Your task to perform on an android device: add a contact in the contacts app Image 0: 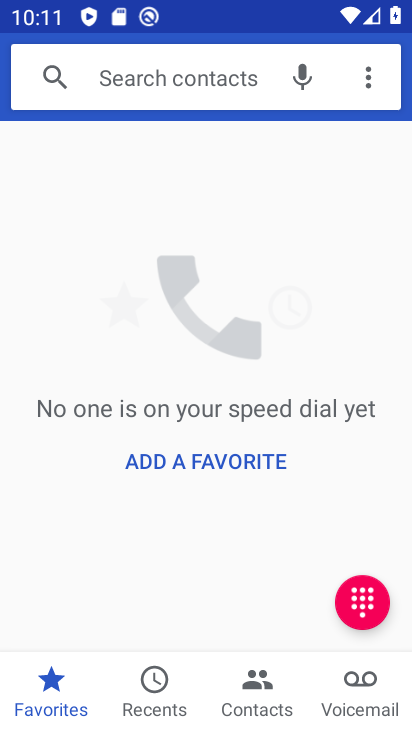
Step 0: press home button
Your task to perform on an android device: add a contact in the contacts app Image 1: 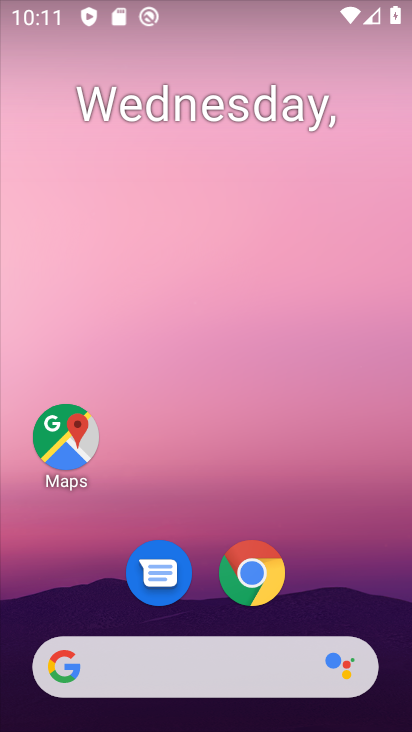
Step 1: drag from (293, 526) to (269, 224)
Your task to perform on an android device: add a contact in the contacts app Image 2: 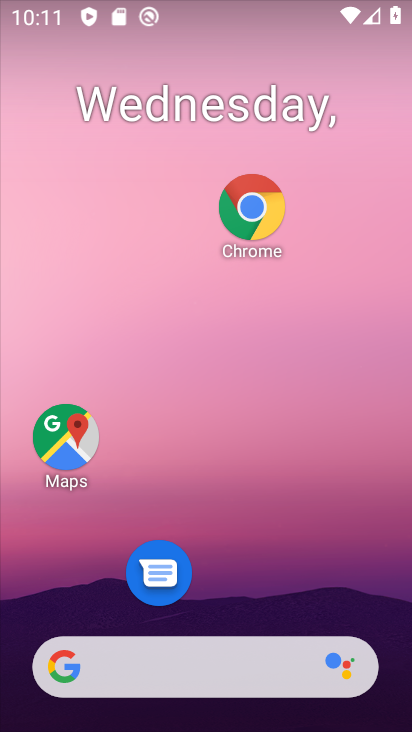
Step 2: drag from (274, 482) to (272, 218)
Your task to perform on an android device: add a contact in the contacts app Image 3: 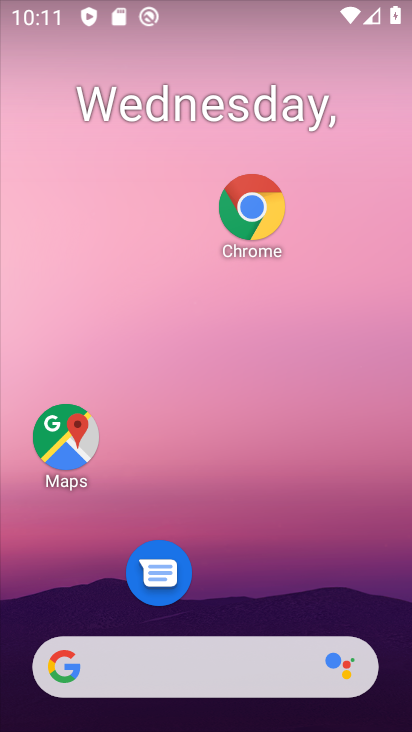
Step 3: drag from (256, 438) to (251, 227)
Your task to perform on an android device: add a contact in the contacts app Image 4: 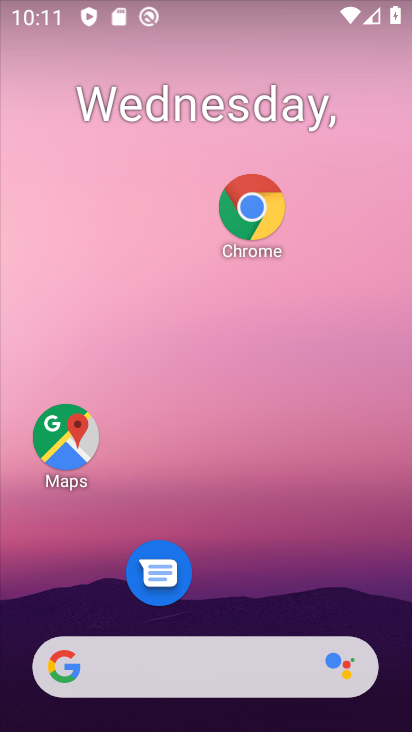
Step 4: drag from (286, 506) to (255, 337)
Your task to perform on an android device: add a contact in the contacts app Image 5: 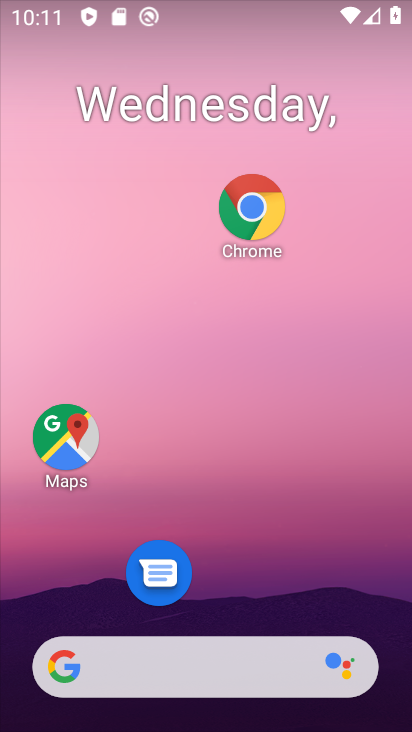
Step 5: drag from (256, 568) to (205, 139)
Your task to perform on an android device: add a contact in the contacts app Image 6: 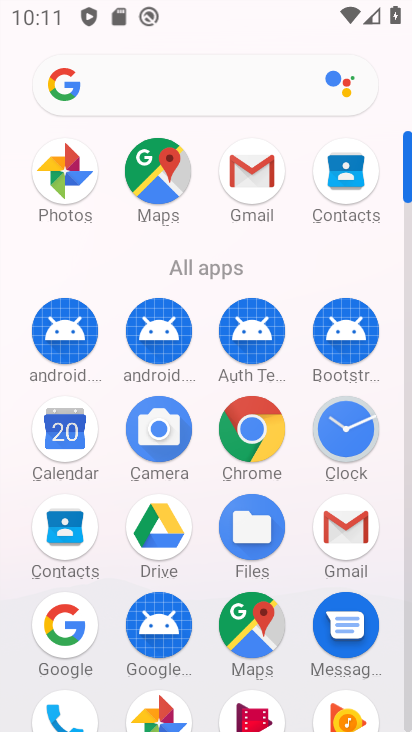
Step 6: click (72, 533)
Your task to perform on an android device: add a contact in the contacts app Image 7: 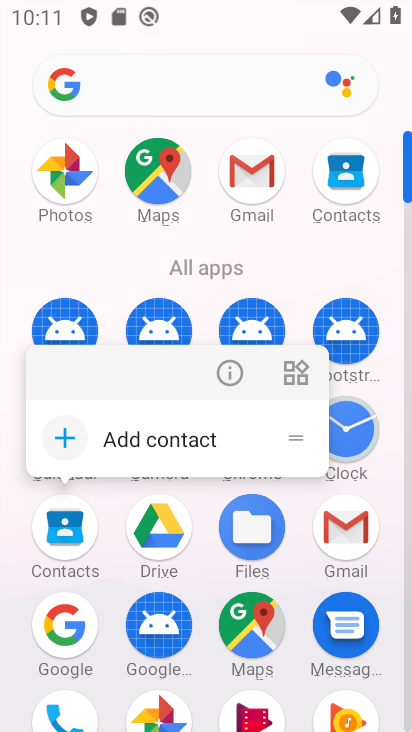
Step 7: click (64, 527)
Your task to perform on an android device: add a contact in the contacts app Image 8: 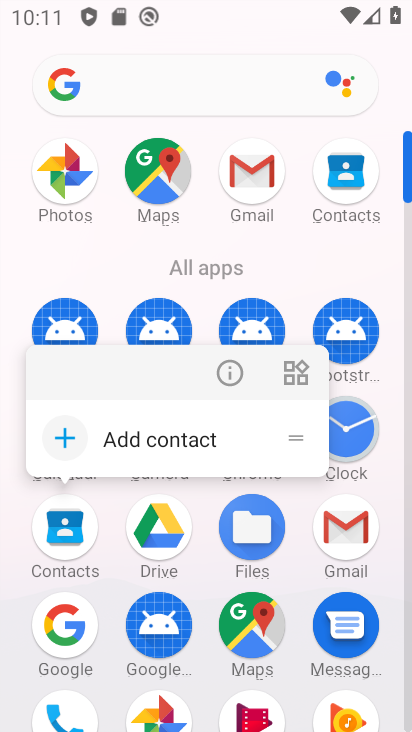
Step 8: click (65, 542)
Your task to perform on an android device: add a contact in the contacts app Image 9: 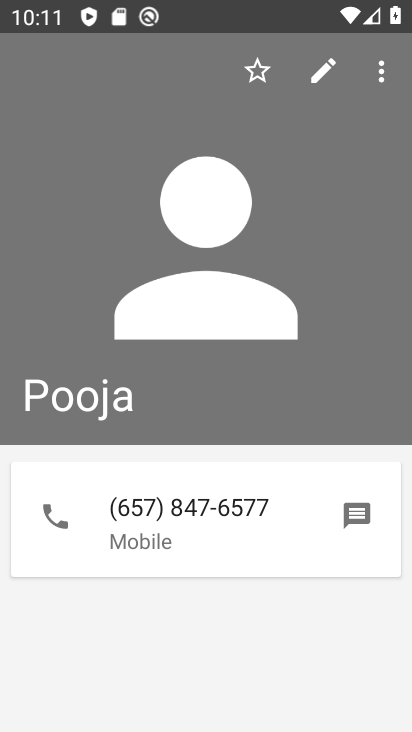
Step 9: press back button
Your task to perform on an android device: add a contact in the contacts app Image 10: 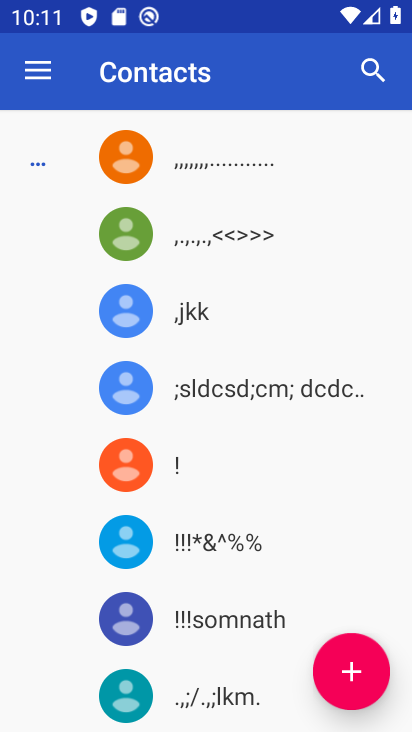
Step 10: click (361, 670)
Your task to perform on an android device: add a contact in the contacts app Image 11: 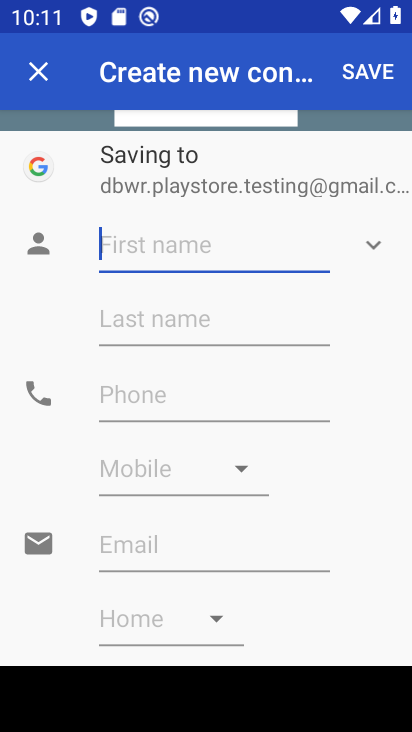
Step 11: type "gudiya"
Your task to perform on an android device: add a contact in the contacts app Image 12: 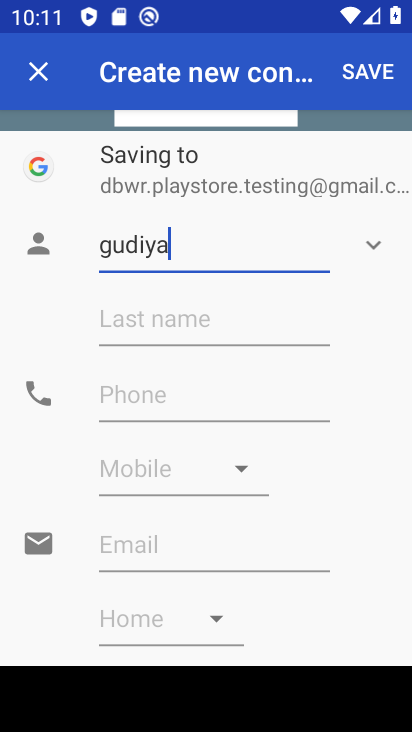
Step 12: click (249, 390)
Your task to perform on an android device: add a contact in the contacts app Image 13: 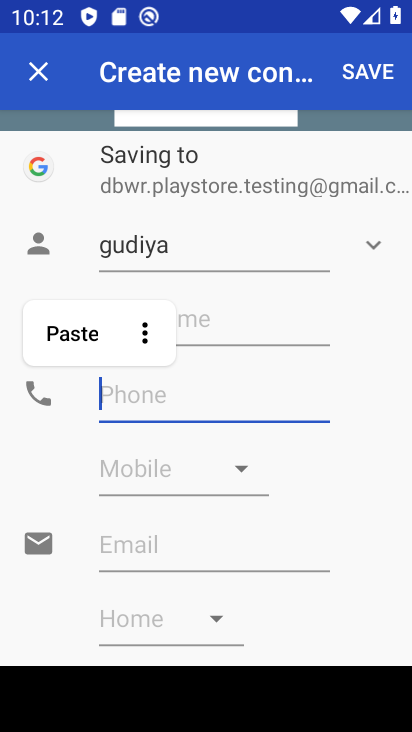
Step 13: type "47654375876"
Your task to perform on an android device: add a contact in the contacts app Image 14: 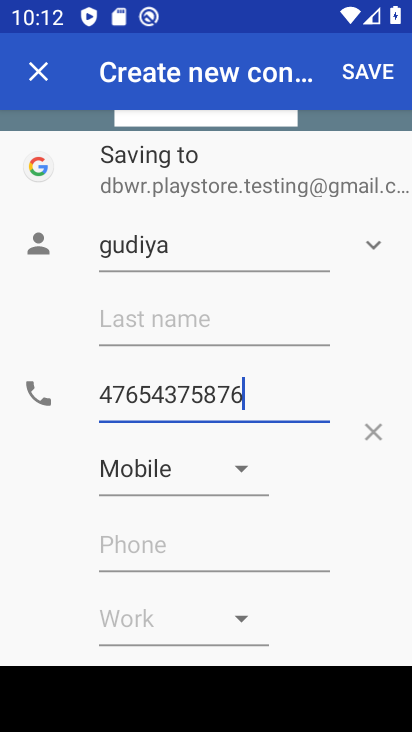
Step 14: click (358, 76)
Your task to perform on an android device: add a contact in the contacts app Image 15: 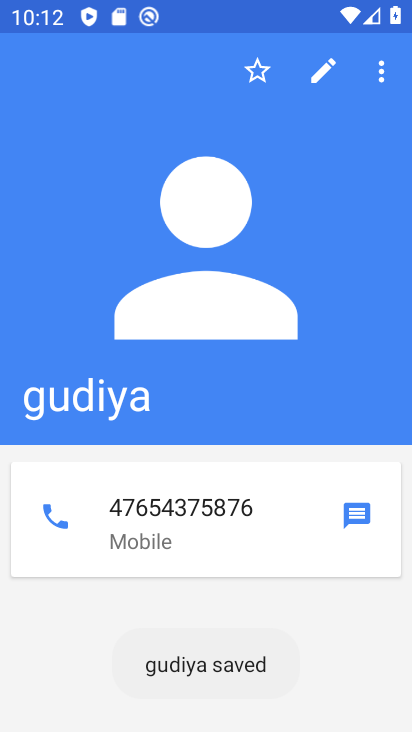
Step 15: task complete